Your task to perform on an android device: change text size in settings app Image 0: 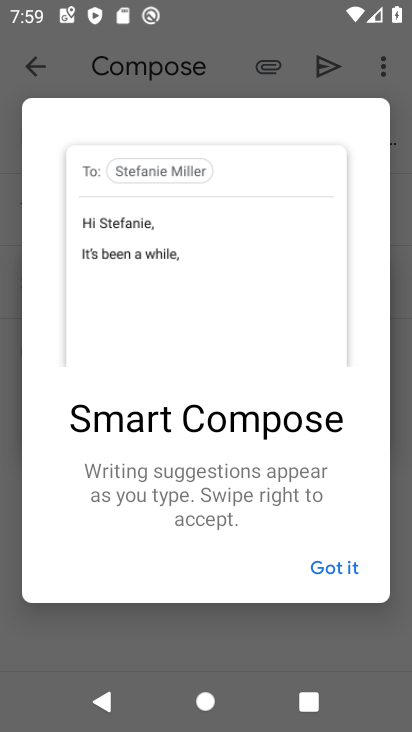
Step 0: press home button
Your task to perform on an android device: change text size in settings app Image 1: 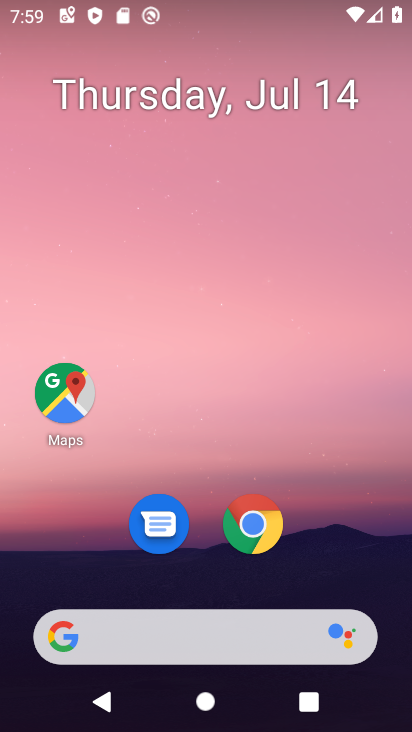
Step 1: drag from (321, 541) to (324, 4)
Your task to perform on an android device: change text size in settings app Image 2: 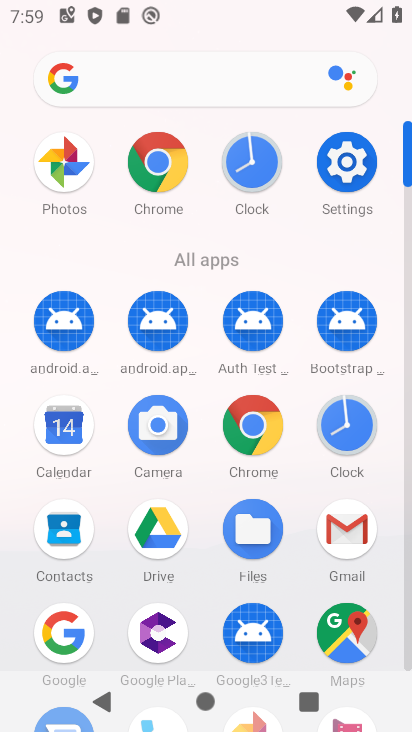
Step 2: click (343, 171)
Your task to perform on an android device: change text size in settings app Image 3: 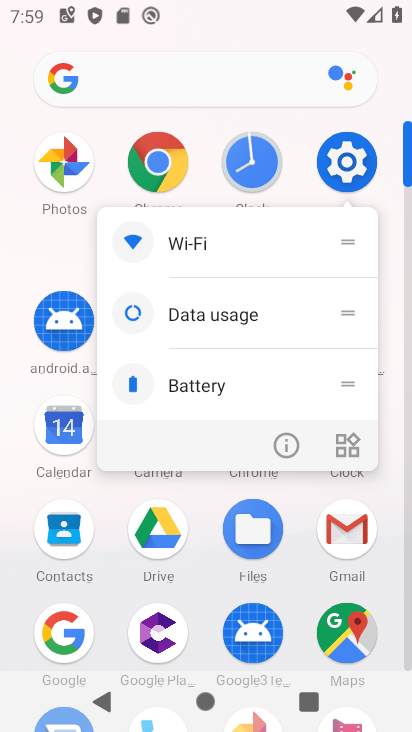
Step 3: click (343, 170)
Your task to perform on an android device: change text size in settings app Image 4: 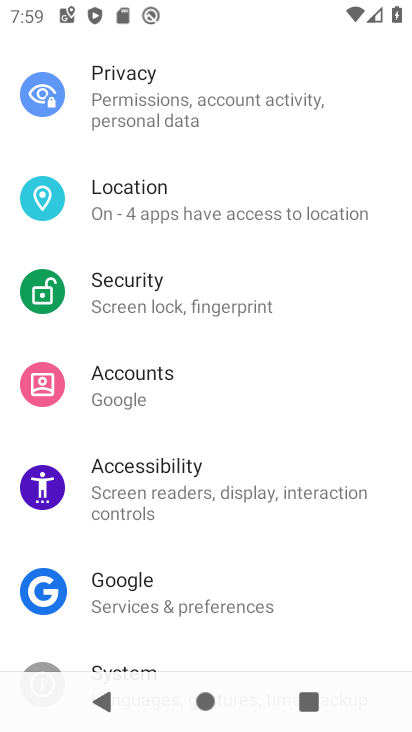
Step 4: drag from (232, 169) to (221, 661)
Your task to perform on an android device: change text size in settings app Image 5: 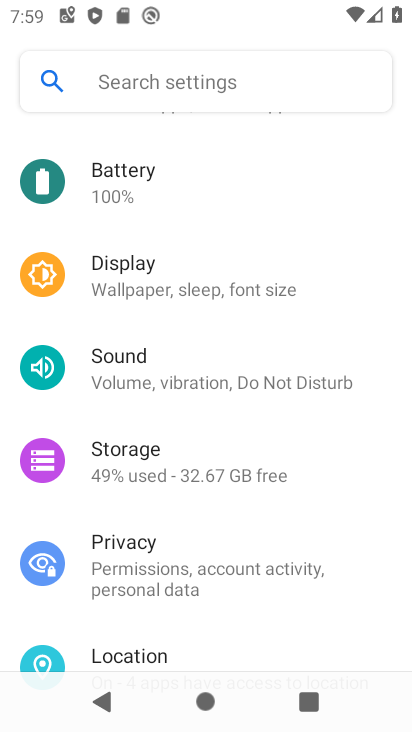
Step 5: click (193, 266)
Your task to perform on an android device: change text size in settings app Image 6: 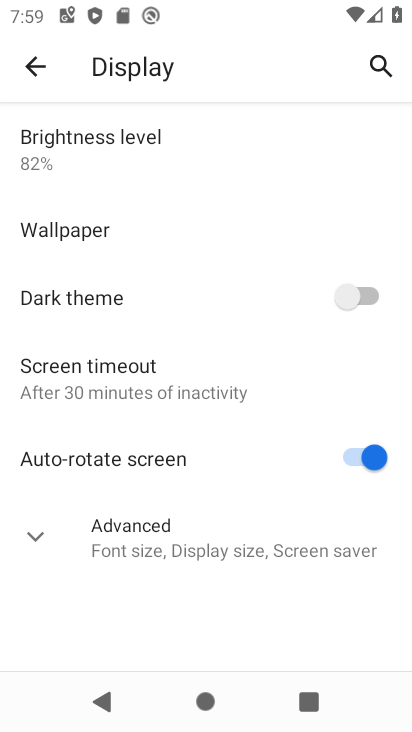
Step 6: click (38, 536)
Your task to perform on an android device: change text size in settings app Image 7: 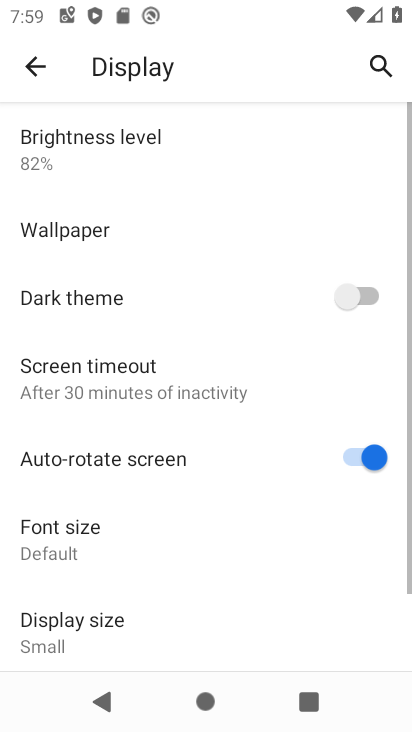
Step 7: drag from (205, 504) to (224, 169)
Your task to perform on an android device: change text size in settings app Image 8: 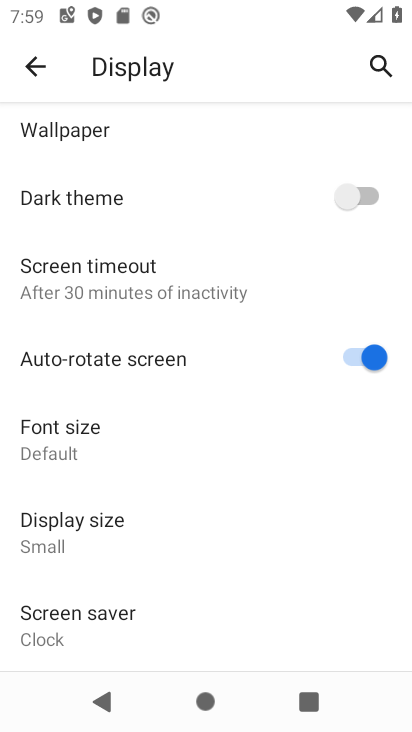
Step 8: click (113, 442)
Your task to perform on an android device: change text size in settings app Image 9: 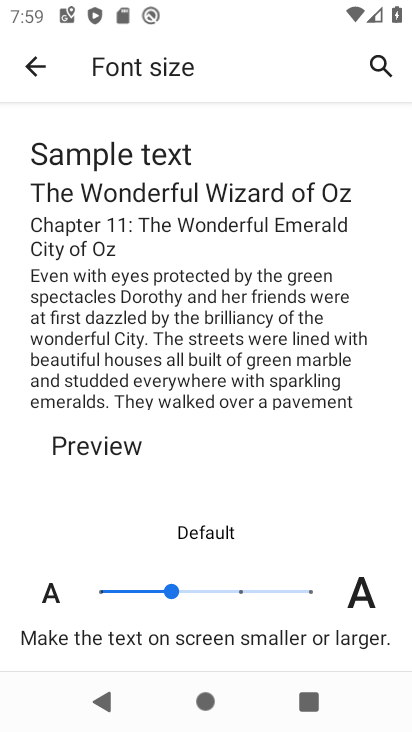
Step 9: click (108, 594)
Your task to perform on an android device: change text size in settings app Image 10: 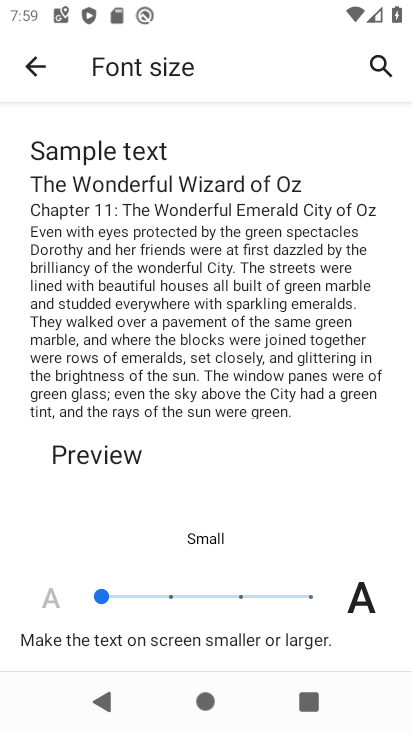
Step 10: click (41, 68)
Your task to perform on an android device: change text size in settings app Image 11: 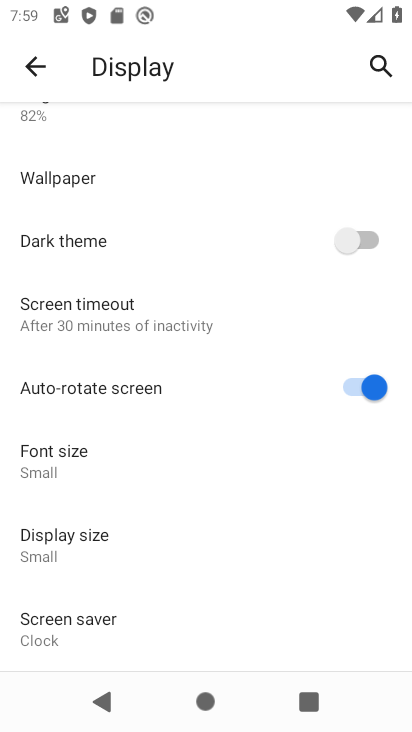
Step 11: task complete